Your task to perform on an android device: change the clock display to analog Image 0: 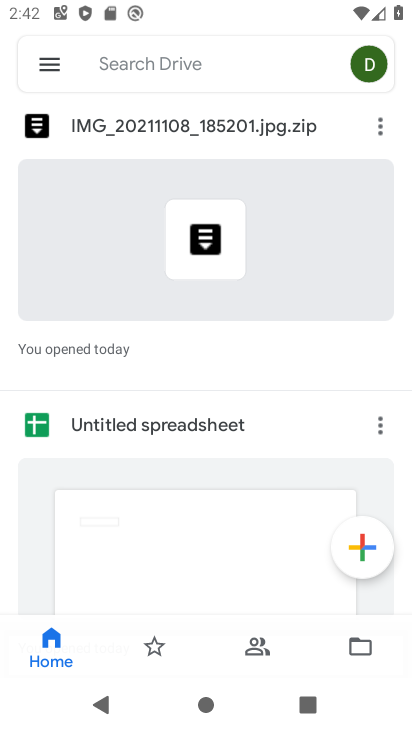
Step 0: press home button
Your task to perform on an android device: change the clock display to analog Image 1: 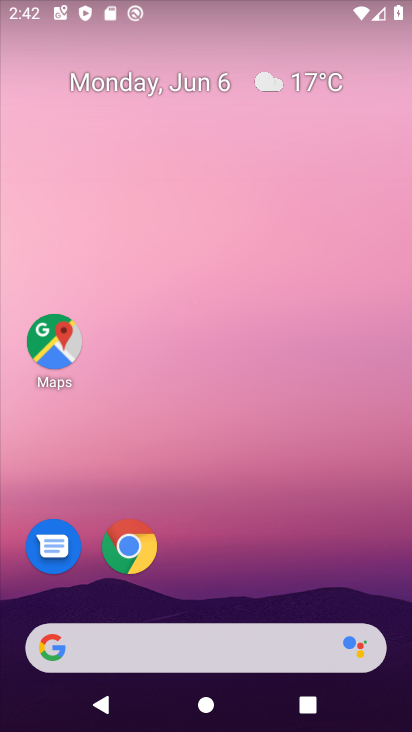
Step 1: drag from (313, 587) to (320, 381)
Your task to perform on an android device: change the clock display to analog Image 2: 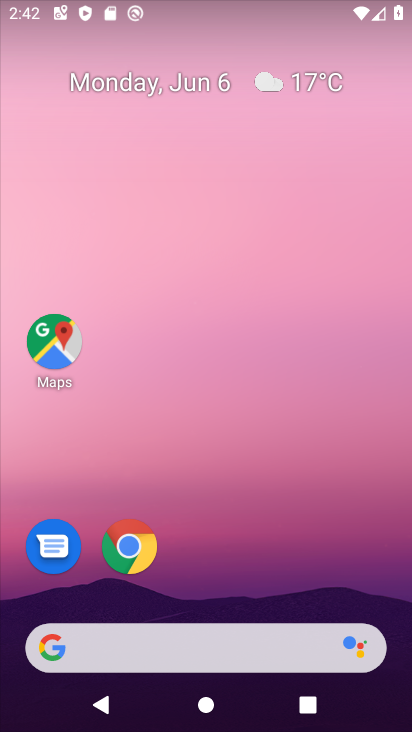
Step 2: drag from (238, 567) to (247, 262)
Your task to perform on an android device: change the clock display to analog Image 3: 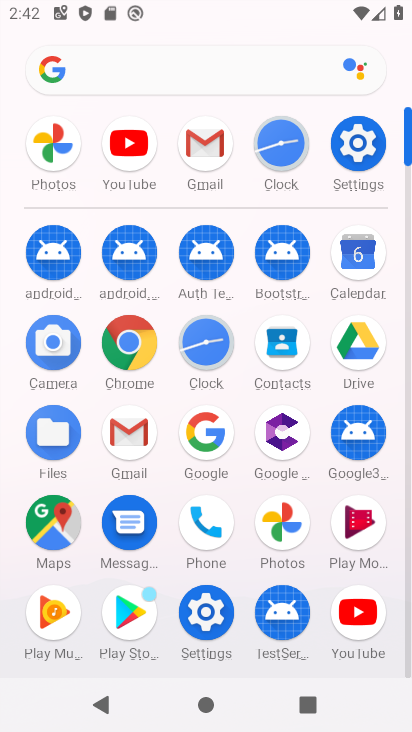
Step 3: click (381, 189)
Your task to perform on an android device: change the clock display to analog Image 4: 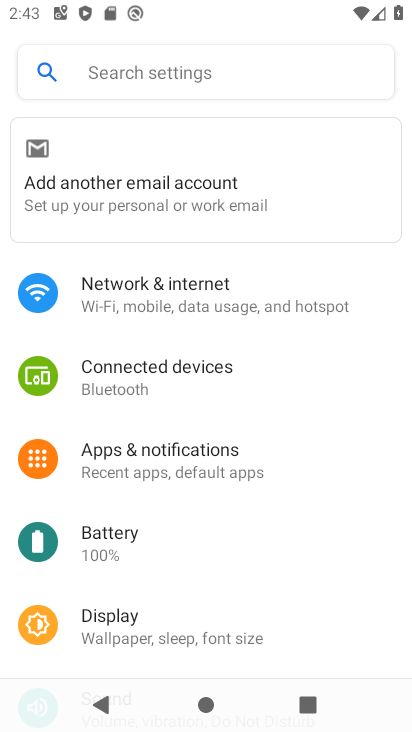
Step 4: press home button
Your task to perform on an android device: change the clock display to analog Image 5: 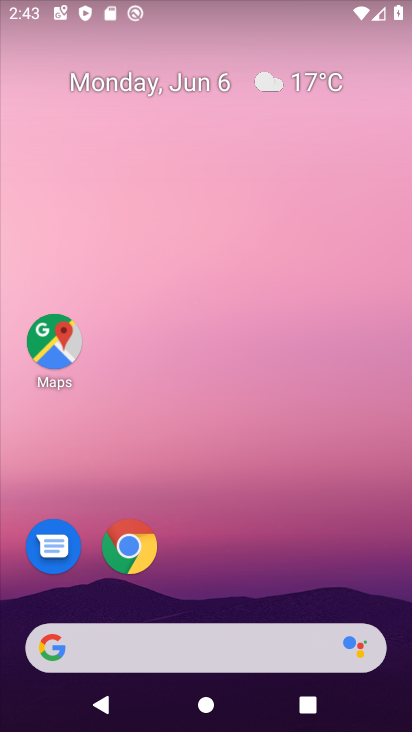
Step 5: drag from (318, 524) to (311, 275)
Your task to perform on an android device: change the clock display to analog Image 6: 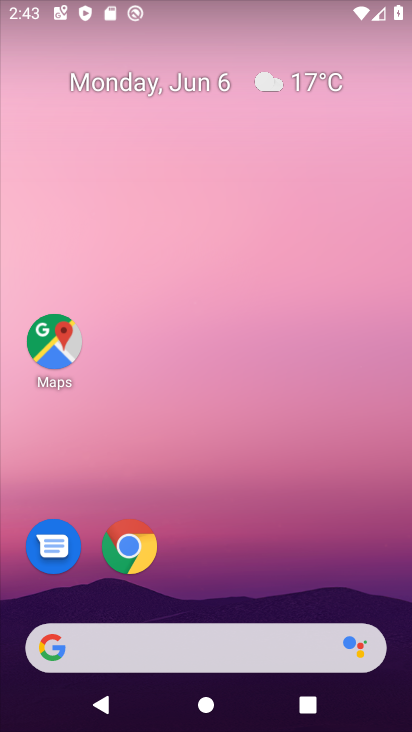
Step 6: drag from (250, 582) to (245, 352)
Your task to perform on an android device: change the clock display to analog Image 7: 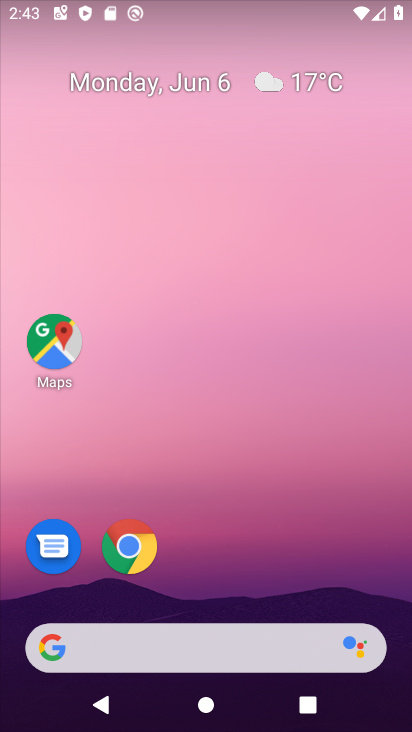
Step 7: drag from (227, 581) to (223, 396)
Your task to perform on an android device: change the clock display to analog Image 8: 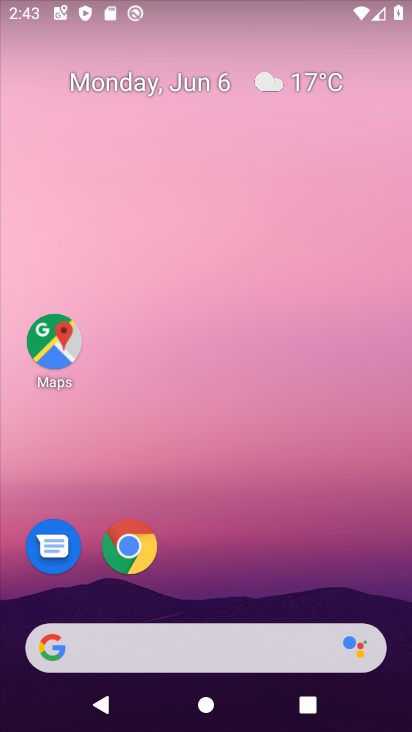
Step 8: drag from (306, 574) to (287, 263)
Your task to perform on an android device: change the clock display to analog Image 9: 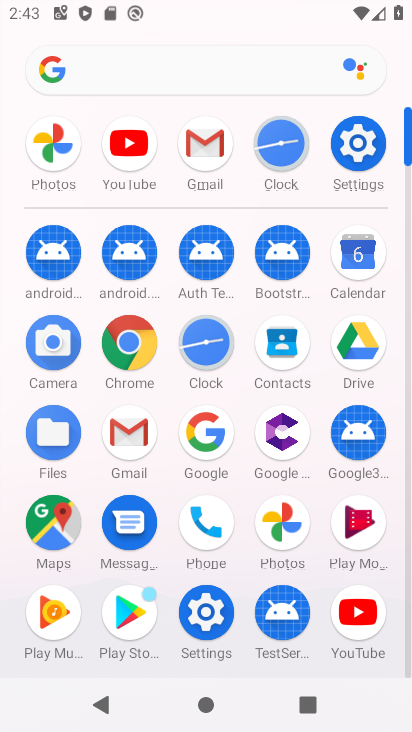
Step 9: click (368, 178)
Your task to perform on an android device: change the clock display to analog Image 10: 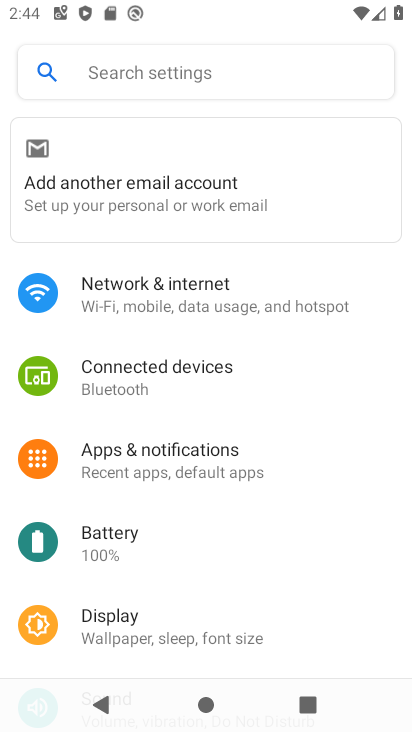
Step 10: task complete